Your task to perform on an android device: Turn on the flashlight Image 0: 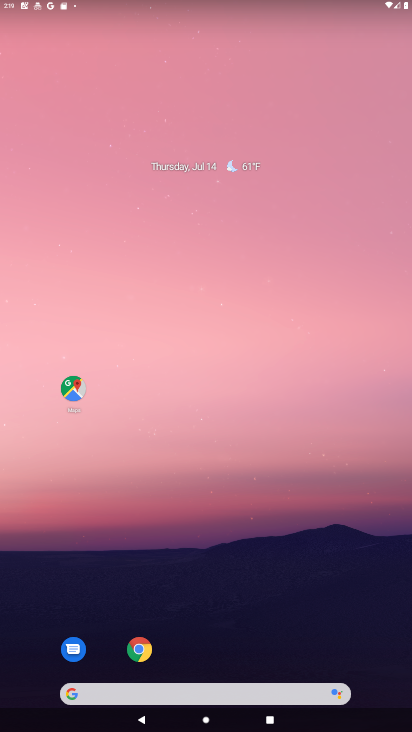
Step 0: drag from (196, 583) to (168, 107)
Your task to perform on an android device: Turn on the flashlight Image 1: 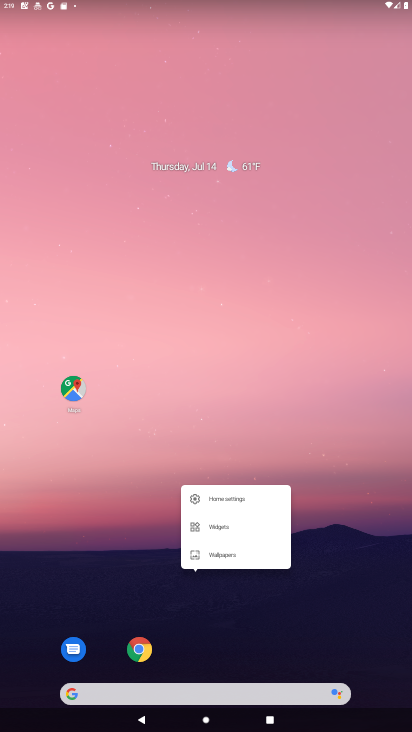
Step 1: drag from (238, 544) to (256, 592)
Your task to perform on an android device: Turn on the flashlight Image 2: 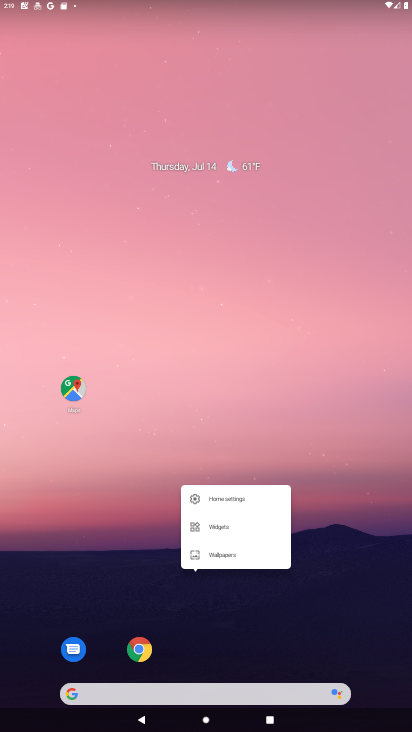
Step 2: drag from (238, 511) to (234, 658)
Your task to perform on an android device: Turn on the flashlight Image 3: 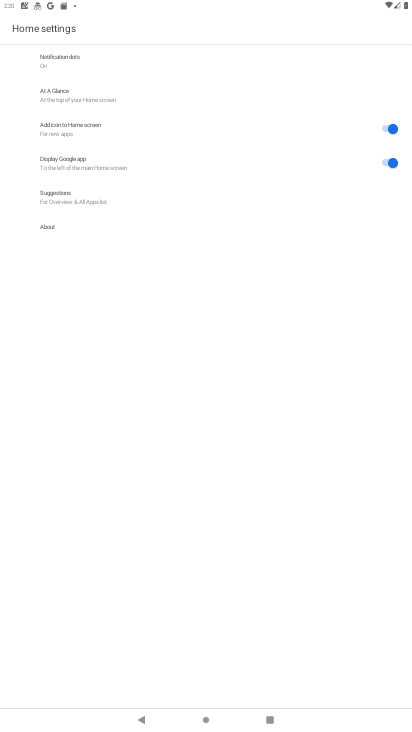
Step 3: drag from (306, 328) to (405, 661)
Your task to perform on an android device: Turn on the flashlight Image 4: 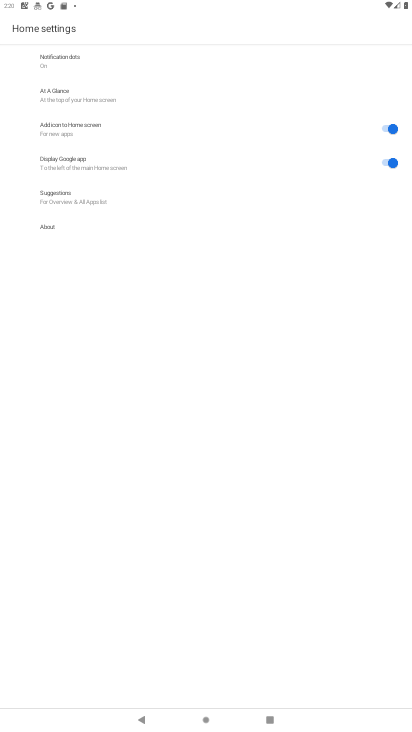
Step 4: click (212, 565)
Your task to perform on an android device: Turn on the flashlight Image 5: 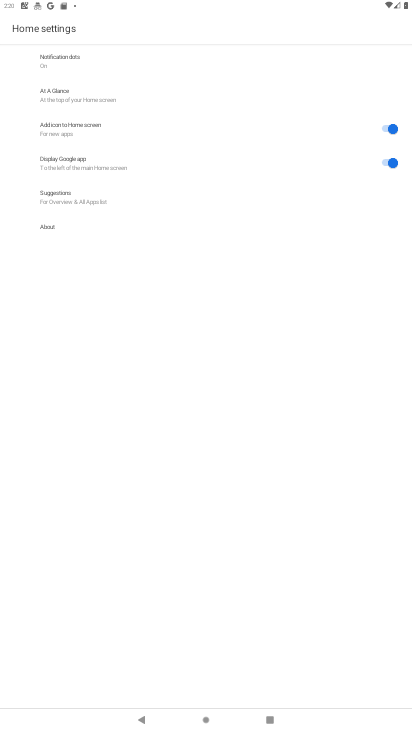
Step 5: click (308, 335)
Your task to perform on an android device: Turn on the flashlight Image 6: 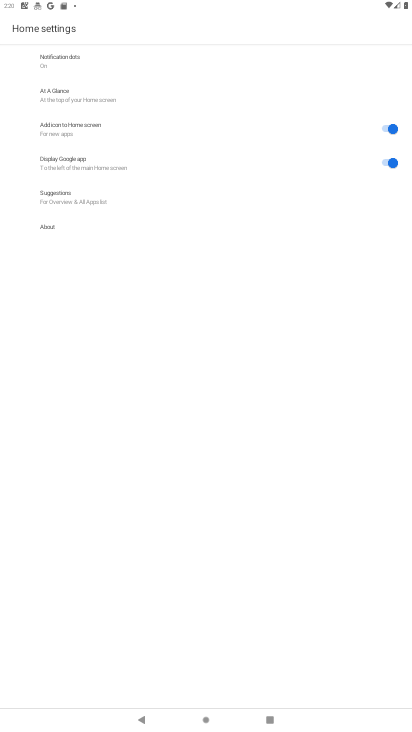
Step 6: task complete